Your task to perform on an android device: search for starred emails in the gmail app Image 0: 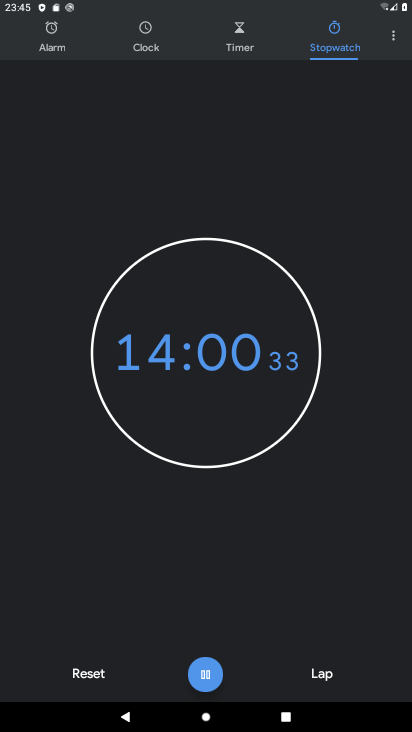
Step 0: press home button
Your task to perform on an android device: search for starred emails in the gmail app Image 1: 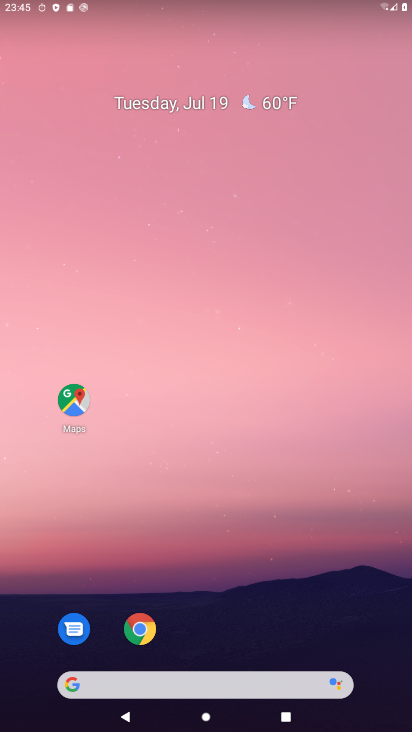
Step 1: drag from (283, 624) to (269, 77)
Your task to perform on an android device: search for starred emails in the gmail app Image 2: 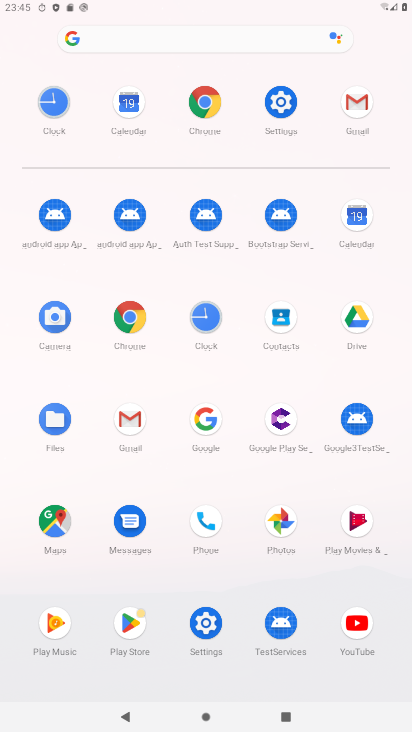
Step 2: click (355, 92)
Your task to perform on an android device: search for starred emails in the gmail app Image 3: 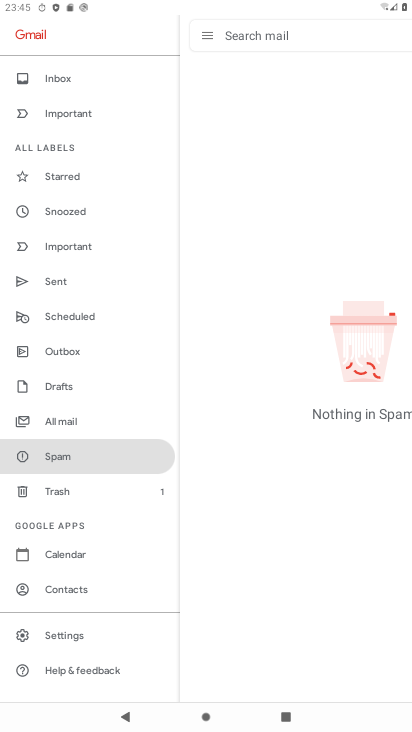
Step 3: click (72, 185)
Your task to perform on an android device: search for starred emails in the gmail app Image 4: 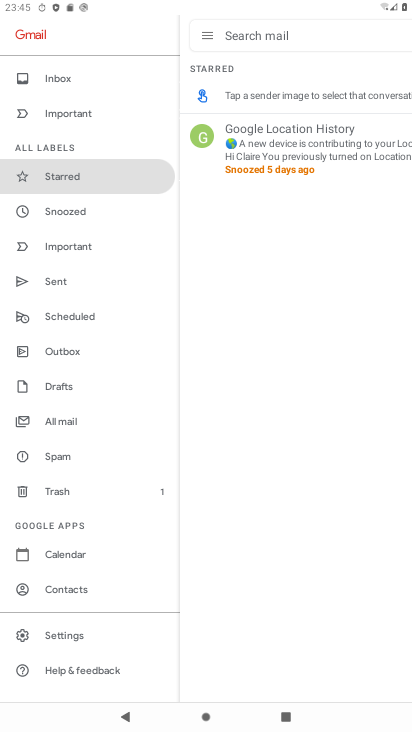
Step 4: task complete